Your task to perform on an android device: clear all cookies in the chrome app Image 0: 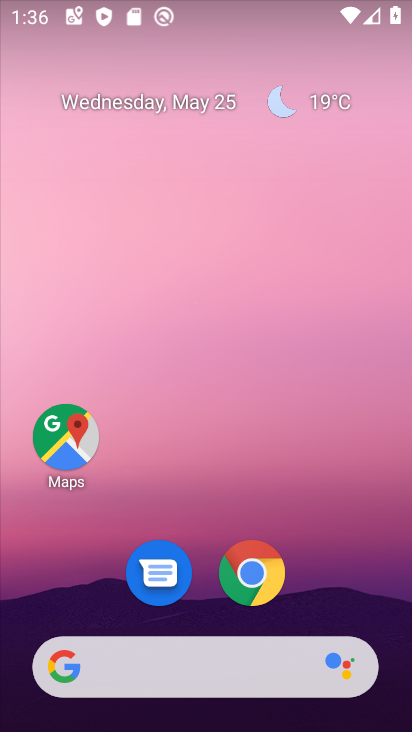
Step 0: click (257, 571)
Your task to perform on an android device: clear all cookies in the chrome app Image 1: 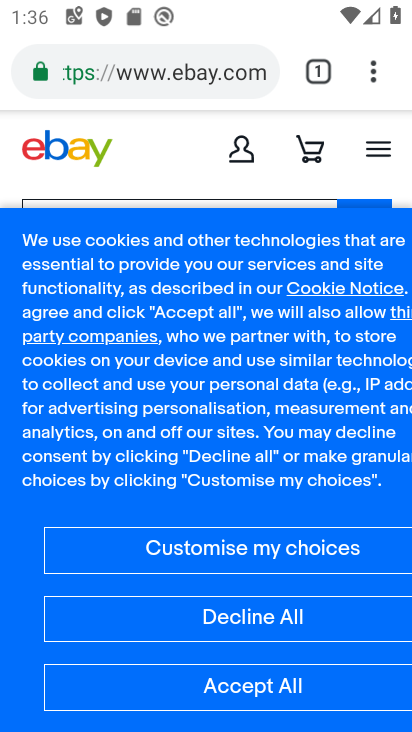
Step 1: click (368, 83)
Your task to perform on an android device: clear all cookies in the chrome app Image 2: 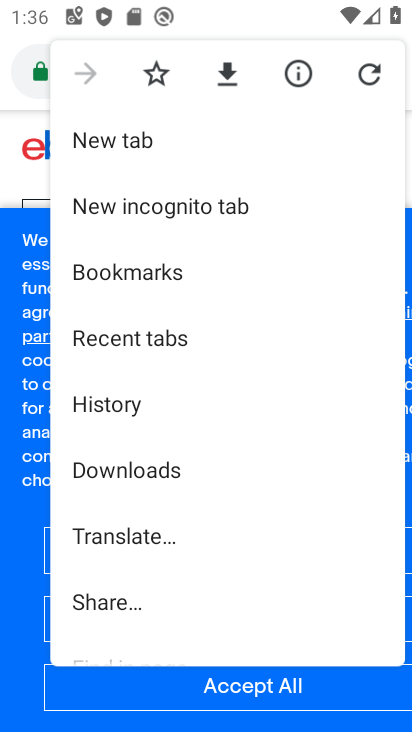
Step 2: click (91, 403)
Your task to perform on an android device: clear all cookies in the chrome app Image 3: 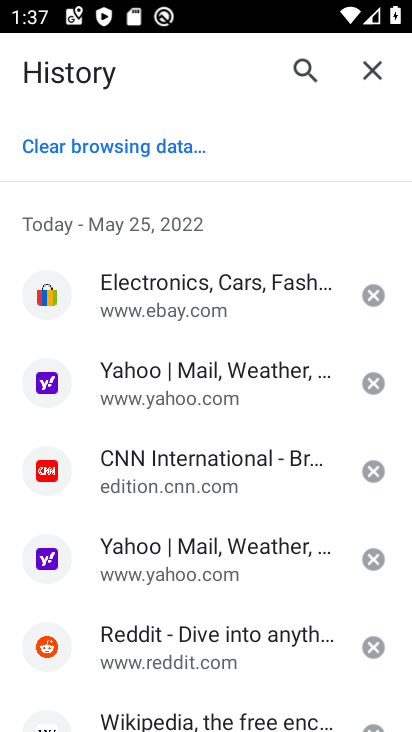
Step 3: click (115, 140)
Your task to perform on an android device: clear all cookies in the chrome app Image 4: 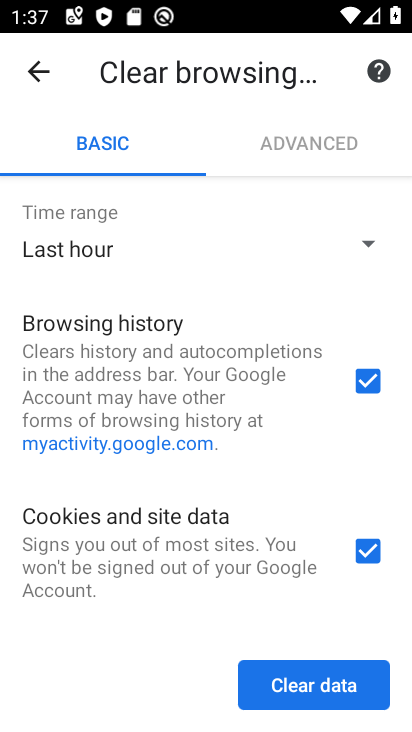
Step 4: click (364, 375)
Your task to perform on an android device: clear all cookies in the chrome app Image 5: 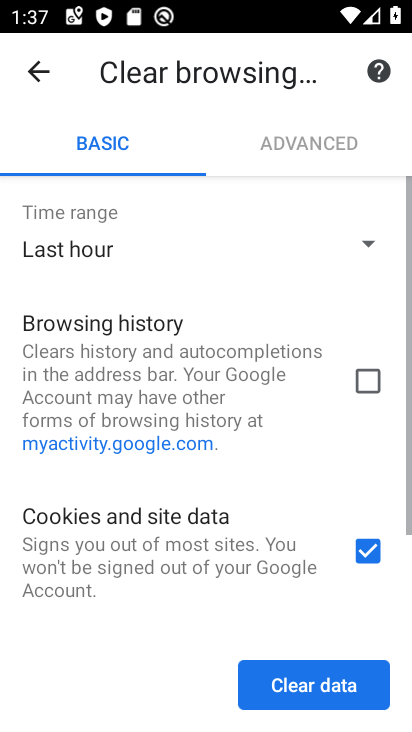
Step 5: drag from (235, 552) to (226, 237)
Your task to perform on an android device: clear all cookies in the chrome app Image 6: 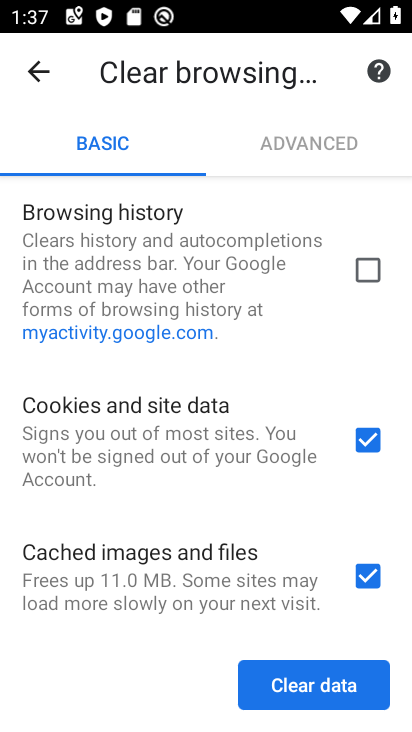
Step 6: click (368, 578)
Your task to perform on an android device: clear all cookies in the chrome app Image 7: 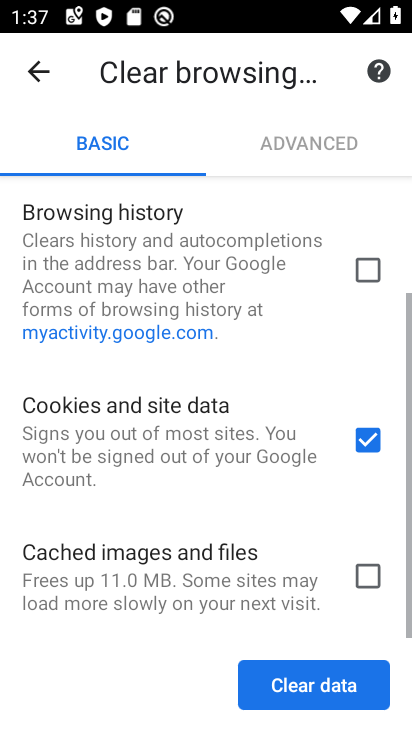
Step 7: click (320, 688)
Your task to perform on an android device: clear all cookies in the chrome app Image 8: 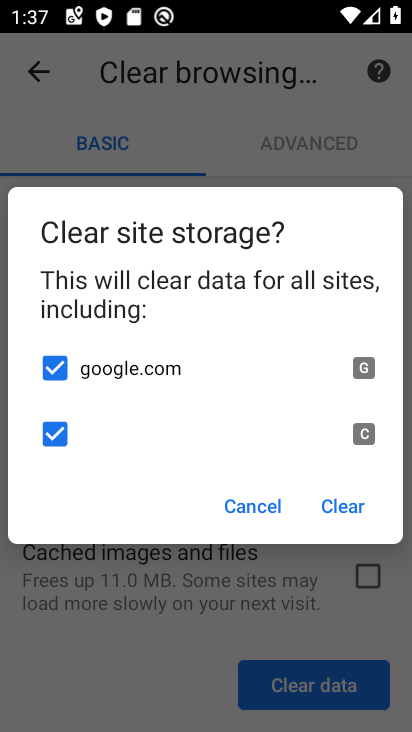
Step 8: click (346, 508)
Your task to perform on an android device: clear all cookies in the chrome app Image 9: 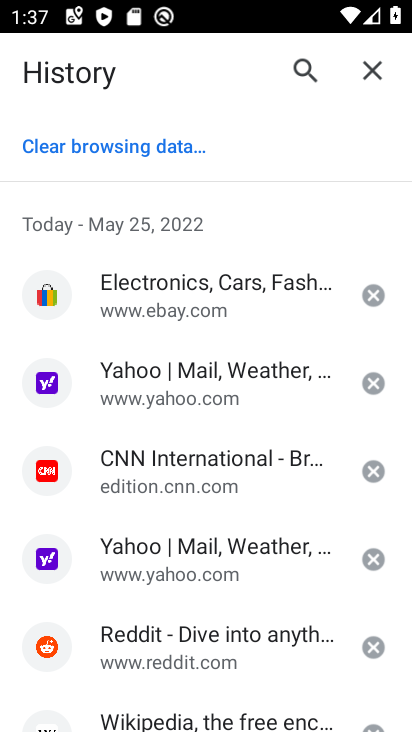
Step 9: task complete